Your task to perform on an android device: Open Youtube and go to "Your channel" Image 0: 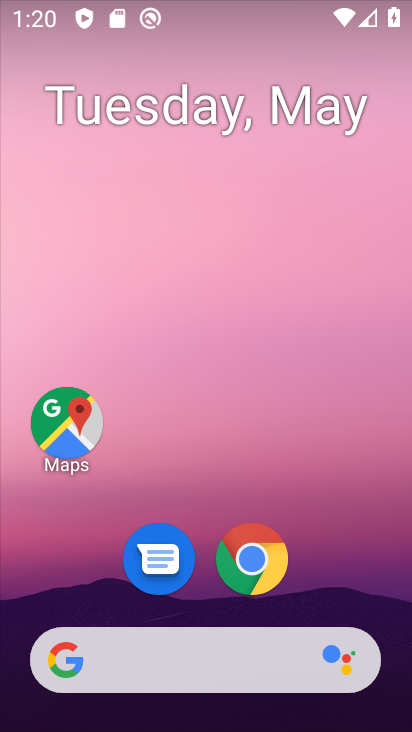
Step 0: drag from (382, 628) to (268, 77)
Your task to perform on an android device: Open Youtube and go to "Your channel" Image 1: 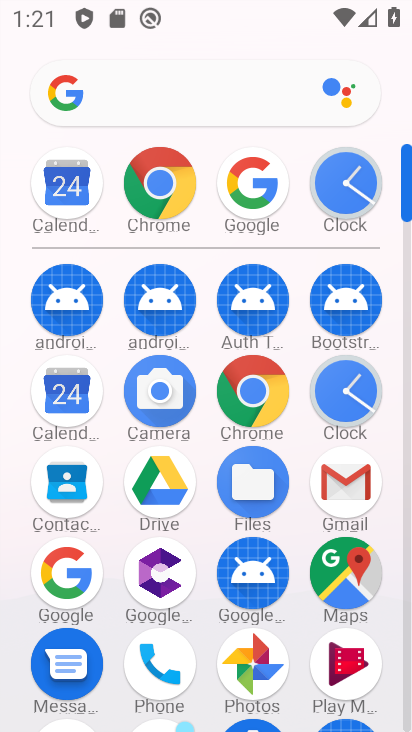
Step 1: drag from (207, 667) to (206, 195)
Your task to perform on an android device: Open Youtube and go to "Your channel" Image 2: 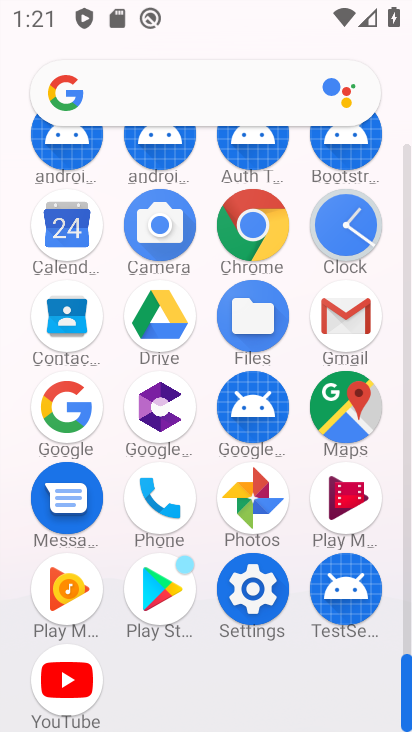
Step 2: click (76, 684)
Your task to perform on an android device: Open Youtube and go to "Your channel" Image 3: 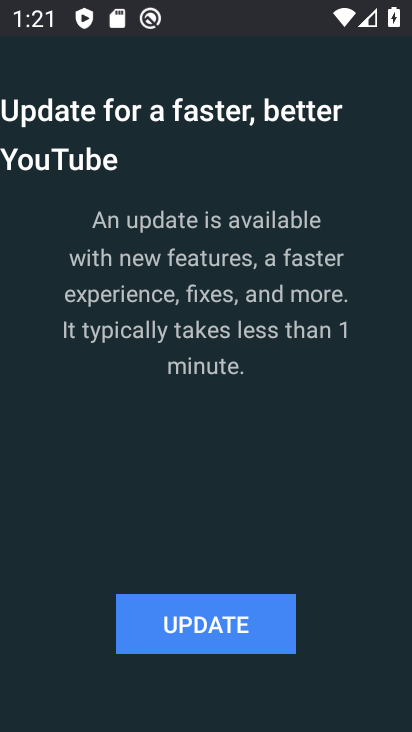
Step 3: drag from (176, 636) to (140, 636)
Your task to perform on an android device: Open Youtube and go to "Your channel" Image 4: 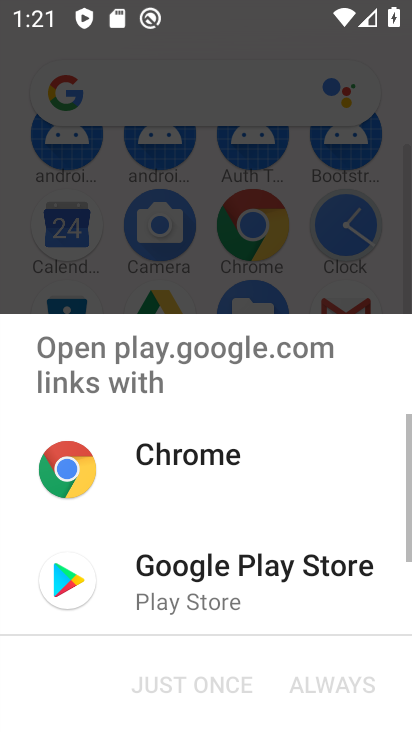
Step 4: click (145, 594)
Your task to perform on an android device: Open Youtube and go to "Your channel" Image 5: 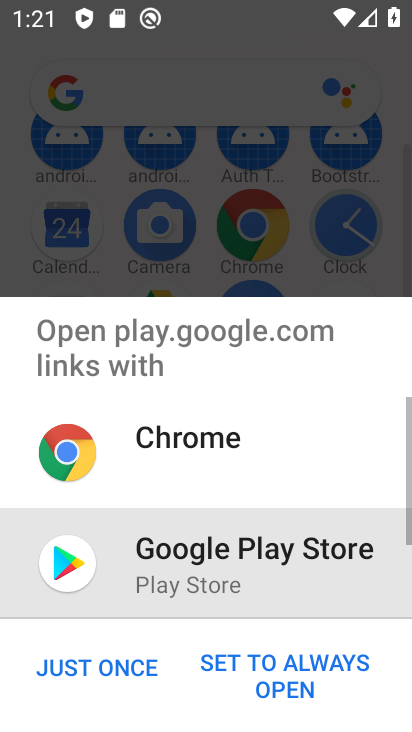
Step 5: click (111, 655)
Your task to perform on an android device: Open Youtube and go to "Your channel" Image 6: 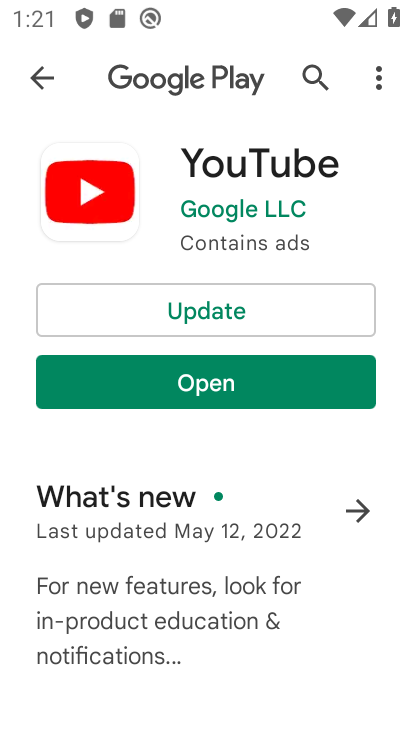
Step 6: click (168, 310)
Your task to perform on an android device: Open Youtube and go to "Your channel" Image 7: 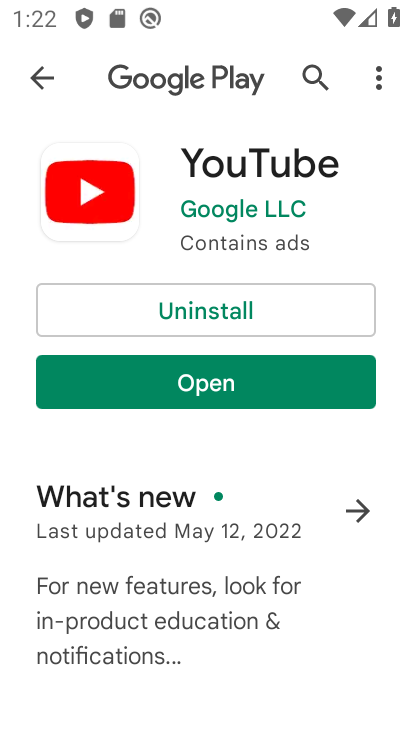
Step 7: click (247, 389)
Your task to perform on an android device: Open Youtube and go to "Your channel" Image 8: 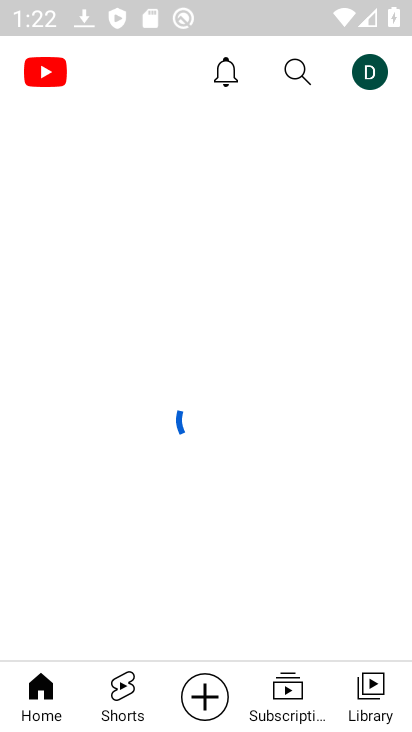
Step 8: click (378, 64)
Your task to perform on an android device: Open Youtube and go to "Your channel" Image 9: 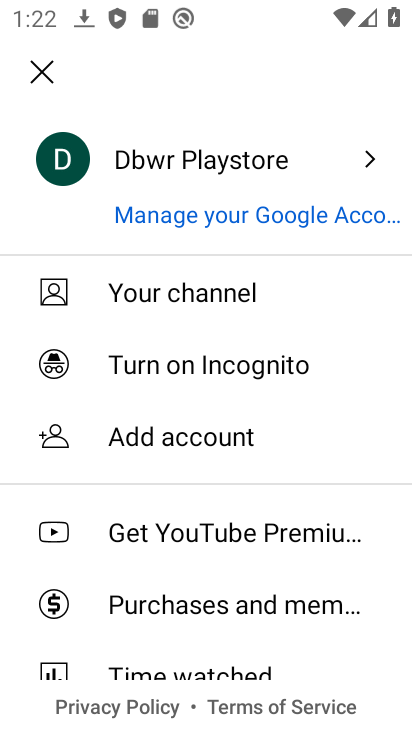
Step 9: click (205, 291)
Your task to perform on an android device: Open Youtube and go to "Your channel" Image 10: 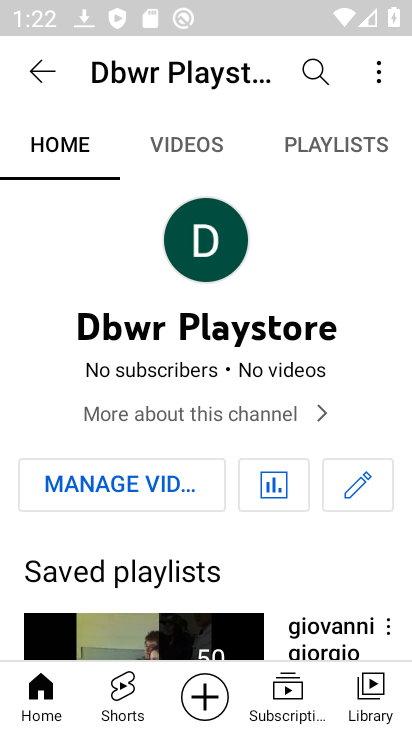
Step 10: task complete